Your task to perform on an android device: turn on airplane mode Image 0: 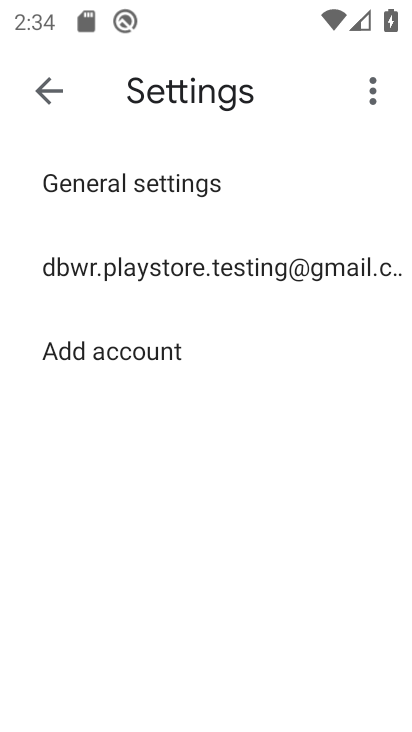
Step 0: press back button
Your task to perform on an android device: turn on airplane mode Image 1: 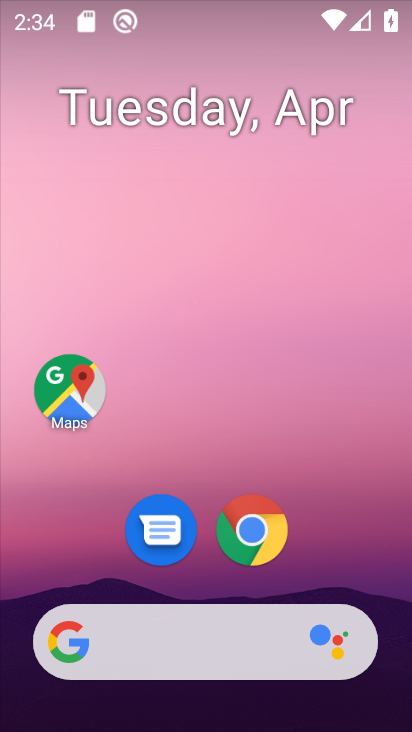
Step 1: drag from (211, 683) to (211, 89)
Your task to perform on an android device: turn on airplane mode Image 2: 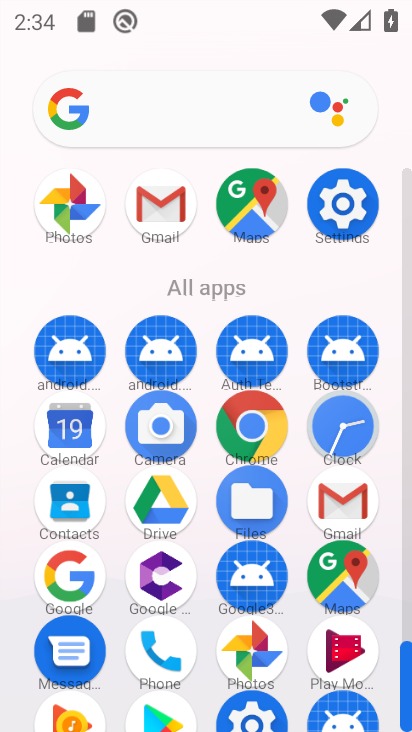
Step 2: click (345, 207)
Your task to perform on an android device: turn on airplane mode Image 3: 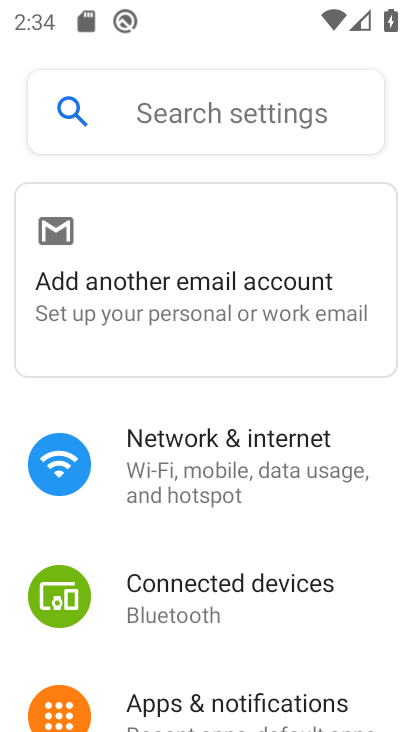
Step 3: click (224, 449)
Your task to perform on an android device: turn on airplane mode Image 4: 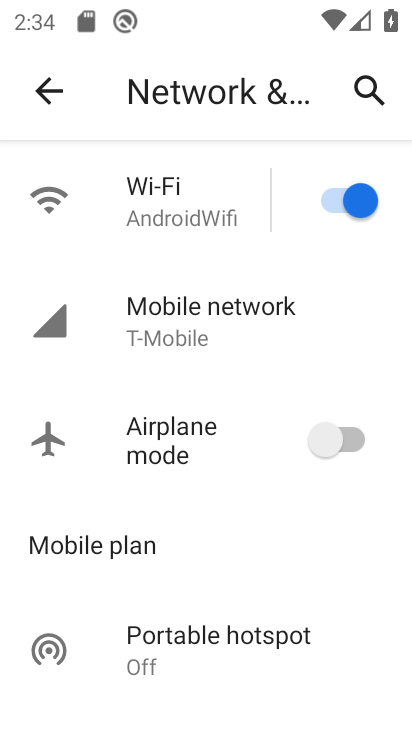
Step 4: click (353, 441)
Your task to perform on an android device: turn on airplane mode Image 5: 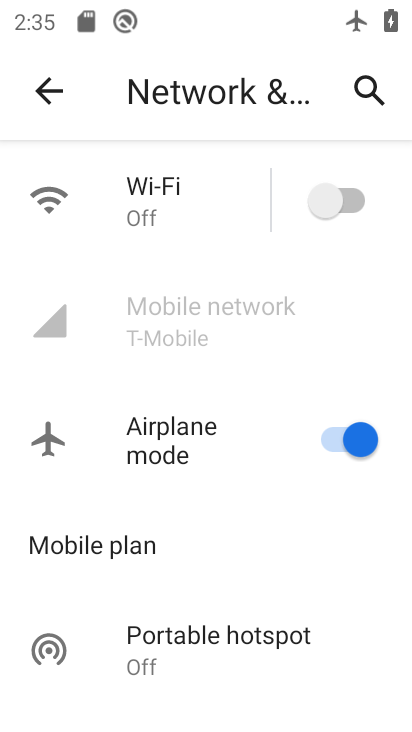
Step 5: task complete